Your task to perform on an android device: Check the weather Image 0: 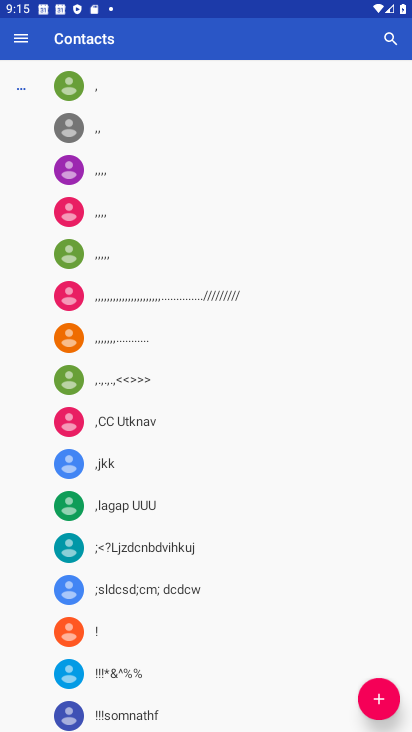
Step 0: press home button
Your task to perform on an android device: Check the weather Image 1: 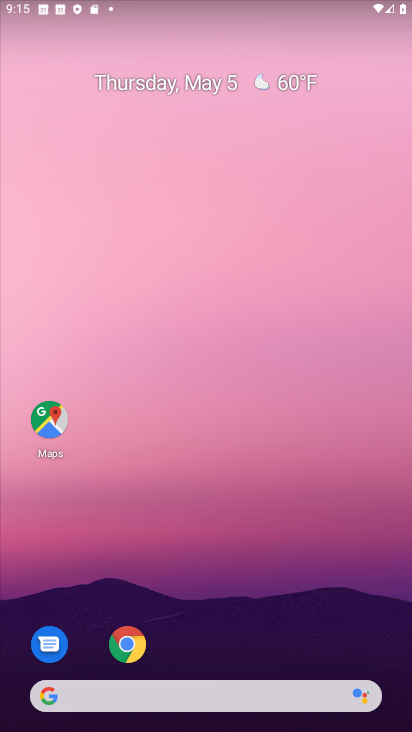
Step 1: drag from (213, 656) to (218, 313)
Your task to perform on an android device: Check the weather Image 2: 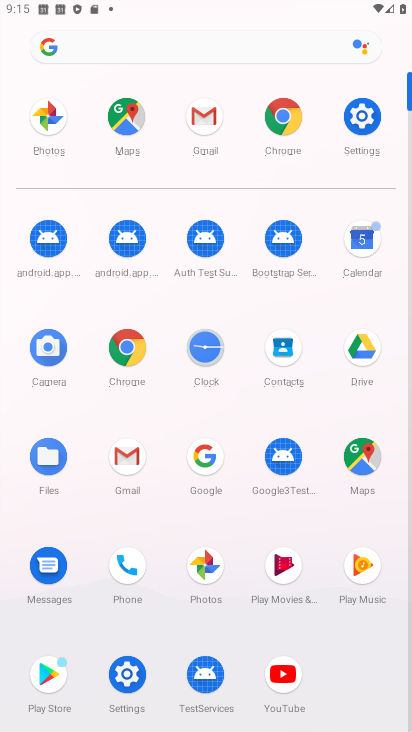
Step 2: click (145, 43)
Your task to perform on an android device: Check the weather Image 3: 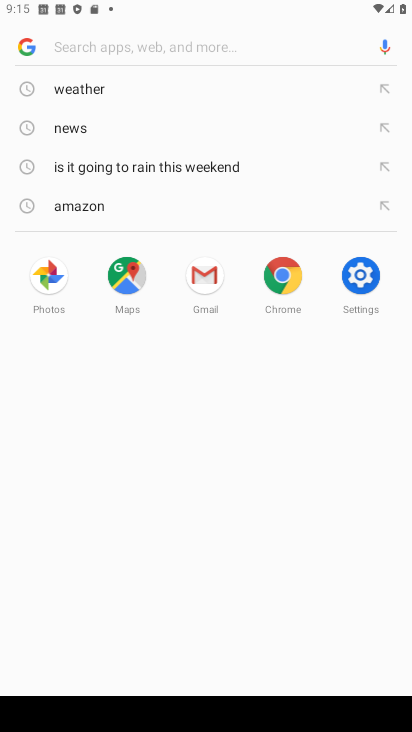
Step 3: click (109, 84)
Your task to perform on an android device: Check the weather Image 4: 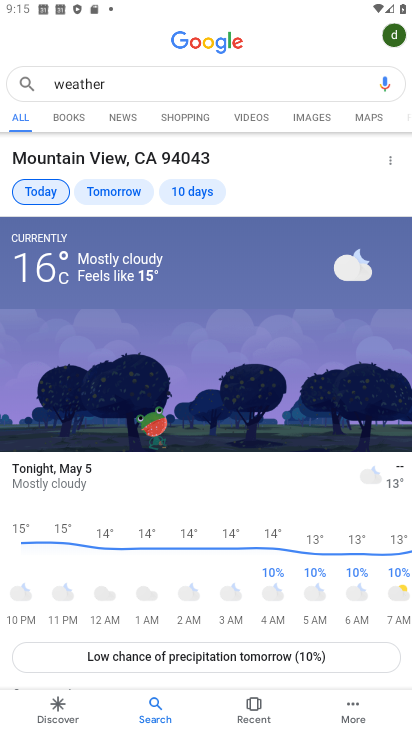
Step 4: task complete